Your task to perform on an android device: Search for sushi restaurants on Maps Image 0: 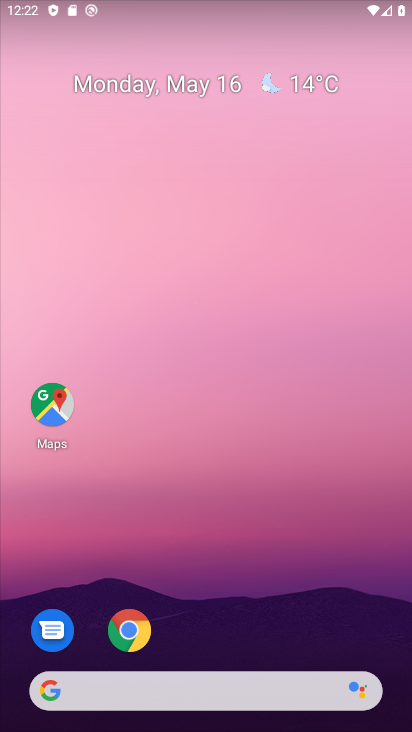
Step 0: click (62, 387)
Your task to perform on an android device: Search for sushi restaurants on Maps Image 1: 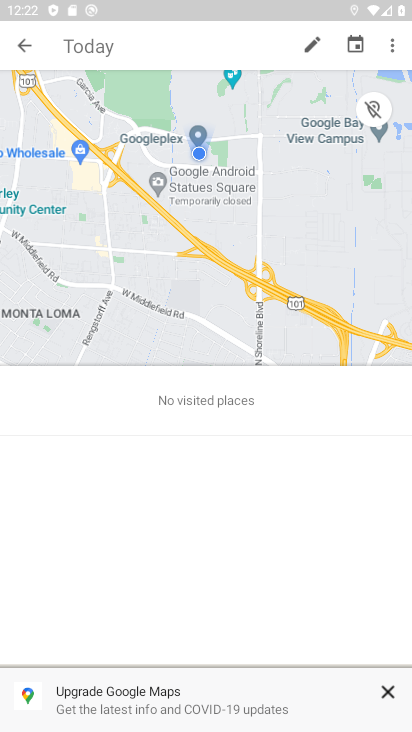
Step 1: click (17, 49)
Your task to perform on an android device: Search for sushi restaurants on Maps Image 2: 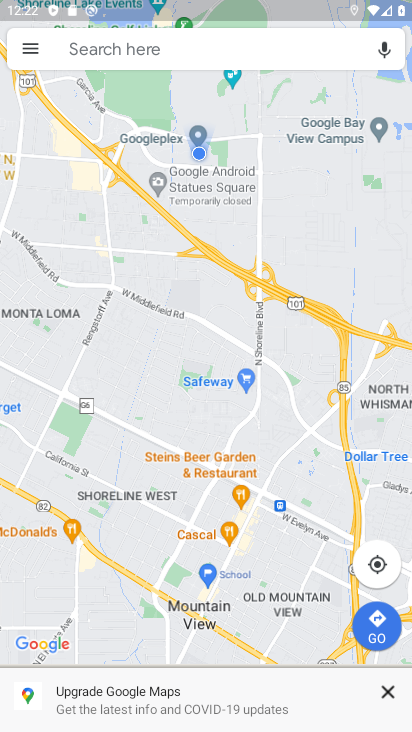
Step 2: click (127, 50)
Your task to perform on an android device: Search for sushi restaurants on Maps Image 3: 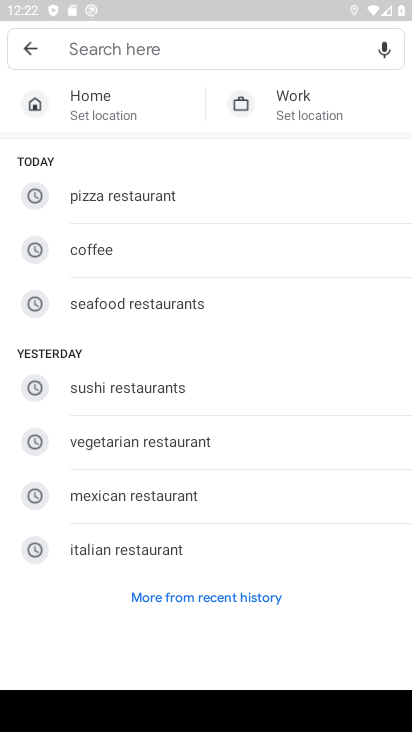
Step 3: click (176, 391)
Your task to perform on an android device: Search for sushi restaurants on Maps Image 4: 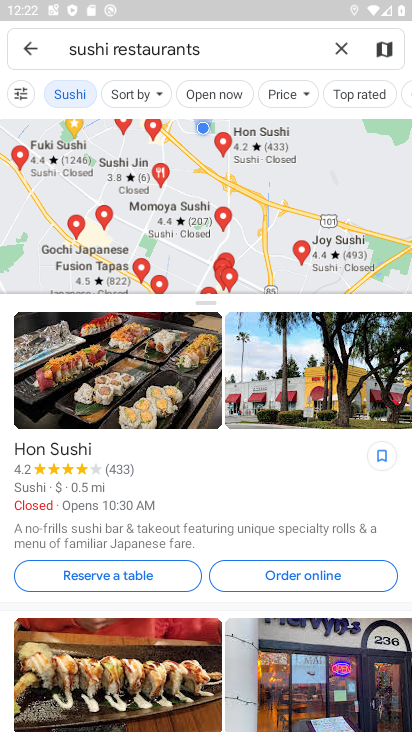
Step 4: task complete